Your task to perform on an android device: turn on the 12-hour format for clock Image 0: 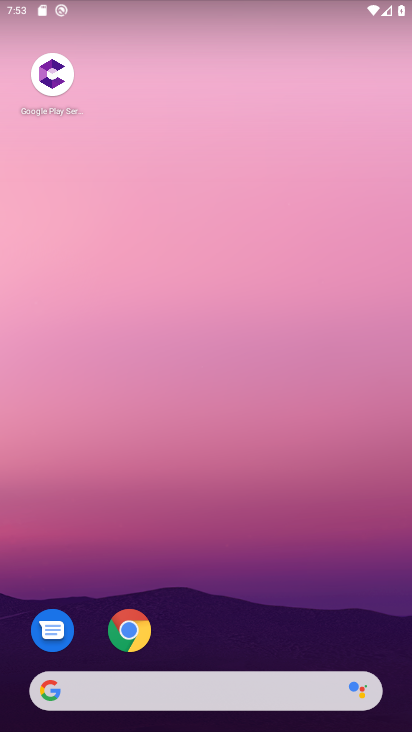
Step 0: drag from (26, 687) to (396, 183)
Your task to perform on an android device: turn on the 12-hour format for clock Image 1: 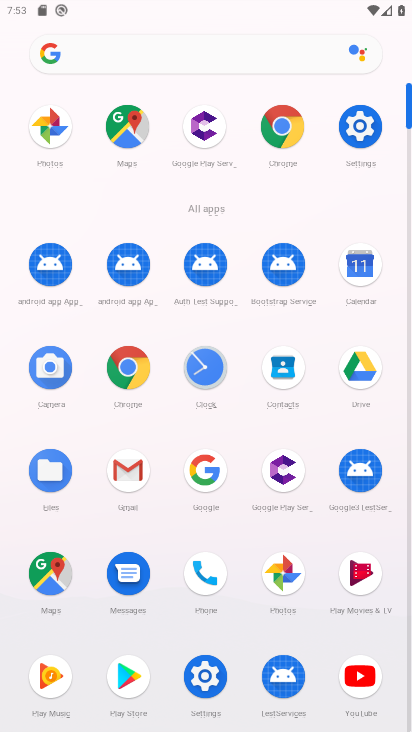
Step 1: click (202, 369)
Your task to perform on an android device: turn on the 12-hour format for clock Image 2: 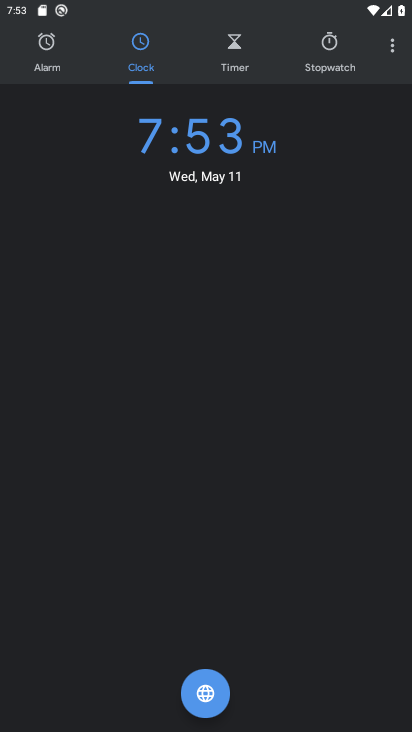
Step 2: click (385, 41)
Your task to perform on an android device: turn on the 12-hour format for clock Image 3: 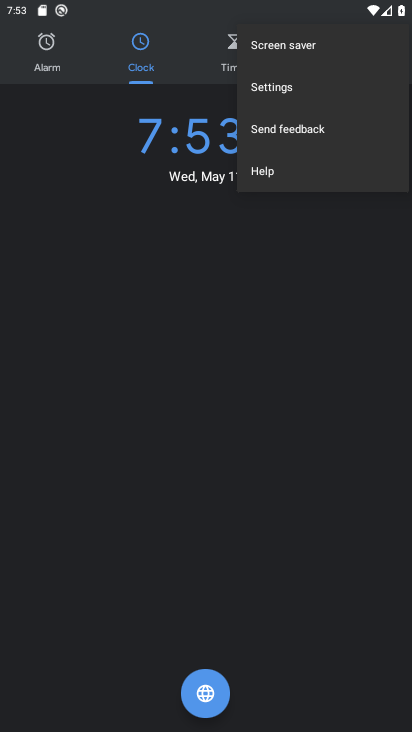
Step 3: click (283, 83)
Your task to perform on an android device: turn on the 12-hour format for clock Image 4: 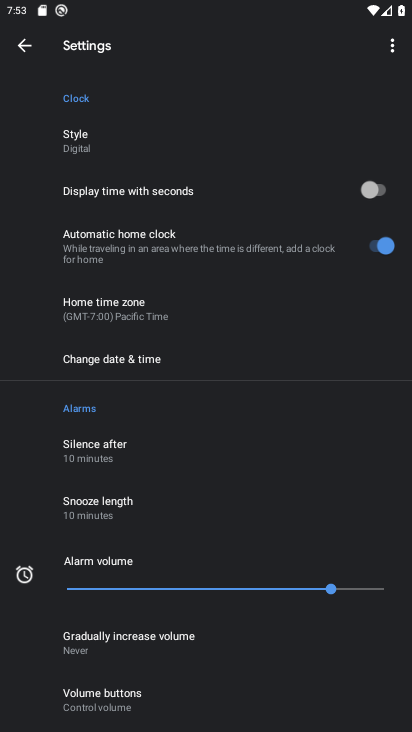
Step 4: click (143, 350)
Your task to perform on an android device: turn on the 12-hour format for clock Image 5: 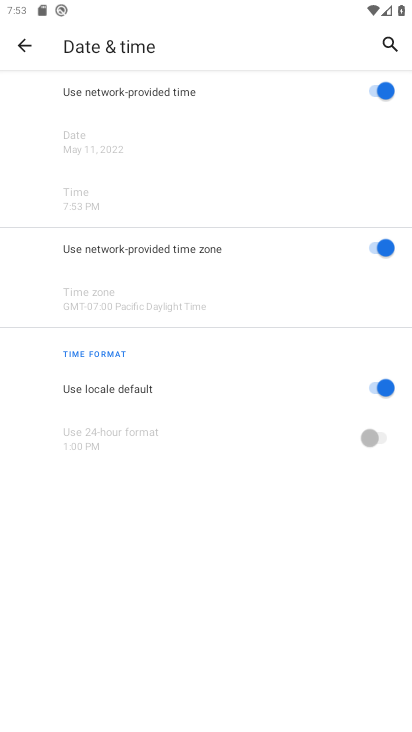
Step 5: task complete